Your task to perform on an android device: Turn on the flashlight Image 0: 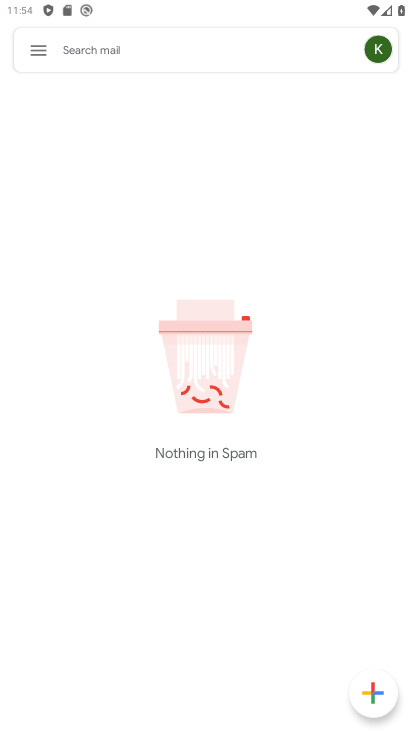
Step 0: press home button
Your task to perform on an android device: Turn on the flashlight Image 1: 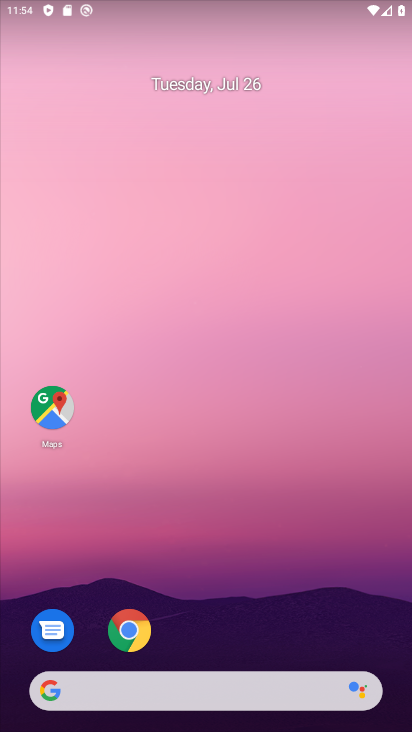
Step 1: drag from (323, 623) to (253, 135)
Your task to perform on an android device: Turn on the flashlight Image 2: 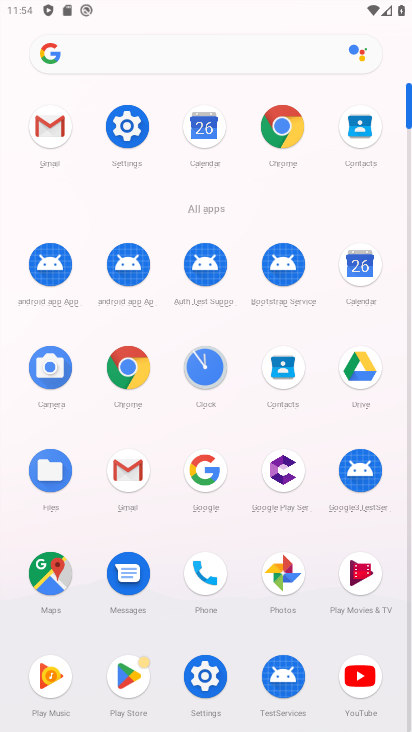
Step 2: click (111, 120)
Your task to perform on an android device: Turn on the flashlight Image 3: 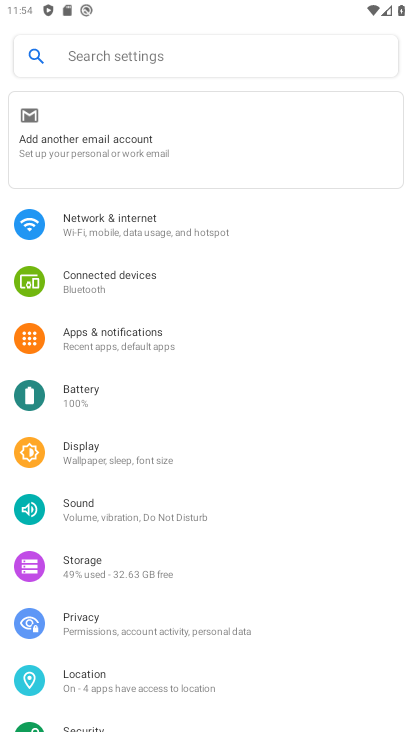
Step 3: task complete